Your task to perform on an android device: toggle location history Image 0: 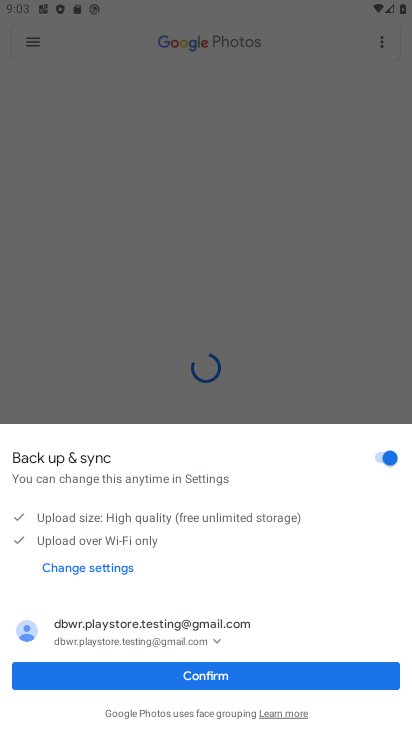
Step 0: press home button
Your task to perform on an android device: toggle location history Image 1: 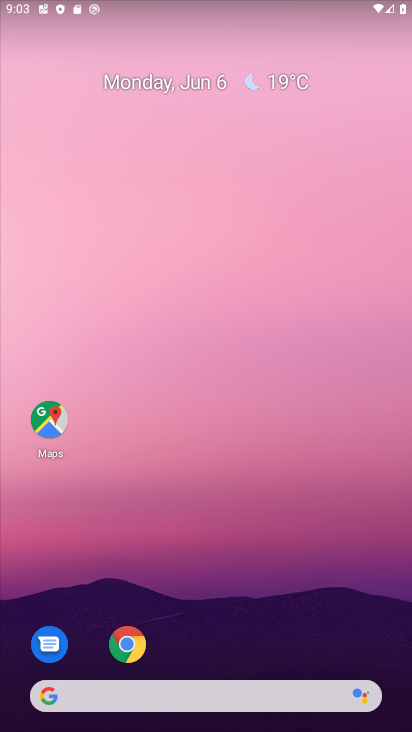
Step 1: drag from (216, 674) to (328, 175)
Your task to perform on an android device: toggle location history Image 2: 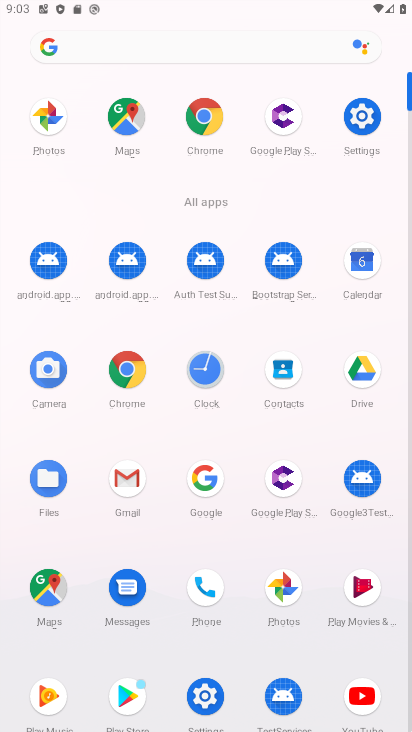
Step 2: click (202, 690)
Your task to perform on an android device: toggle location history Image 3: 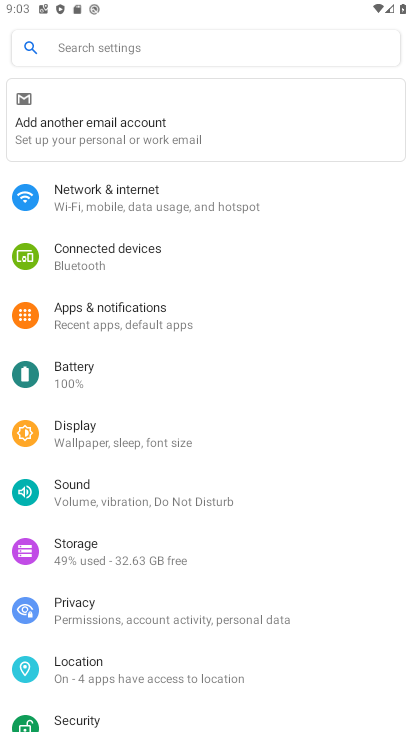
Step 3: drag from (137, 655) to (210, 418)
Your task to perform on an android device: toggle location history Image 4: 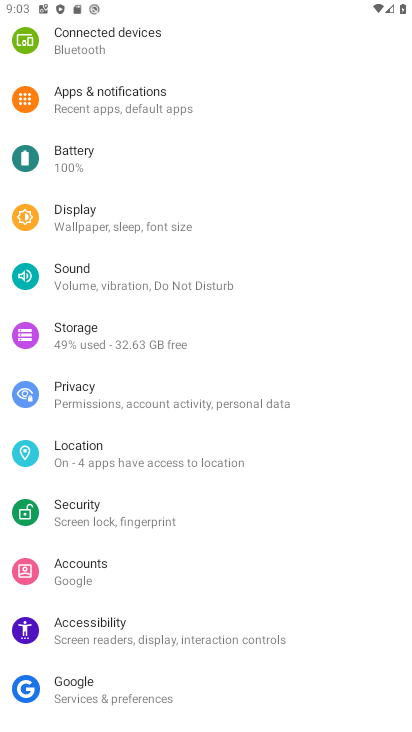
Step 4: click (102, 448)
Your task to perform on an android device: toggle location history Image 5: 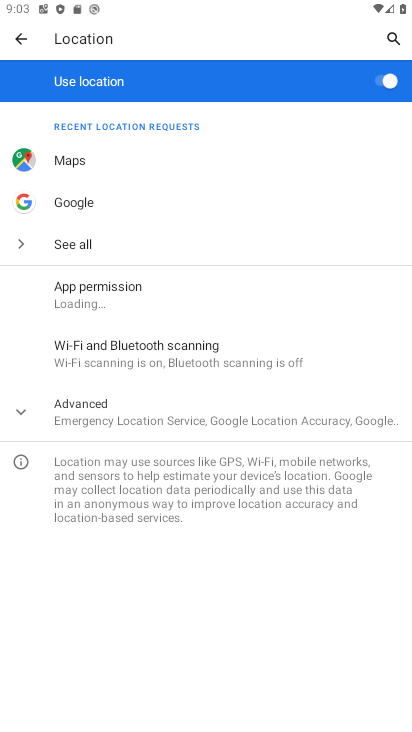
Step 5: click (144, 420)
Your task to perform on an android device: toggle location history Image 6: 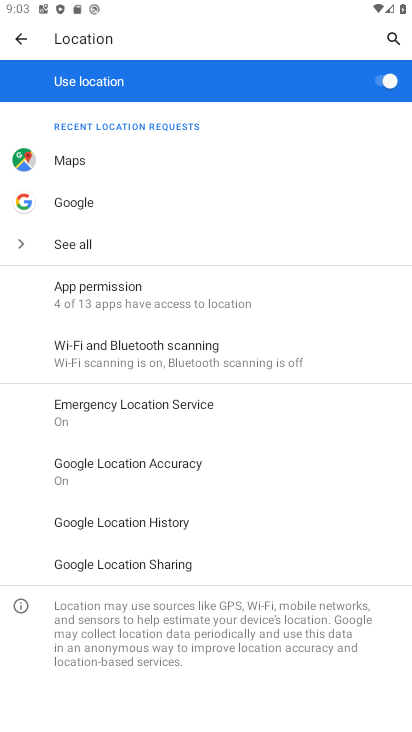
Step 6: click (190, 527)
Your task to perform on an android device: toggle location history Image 7: 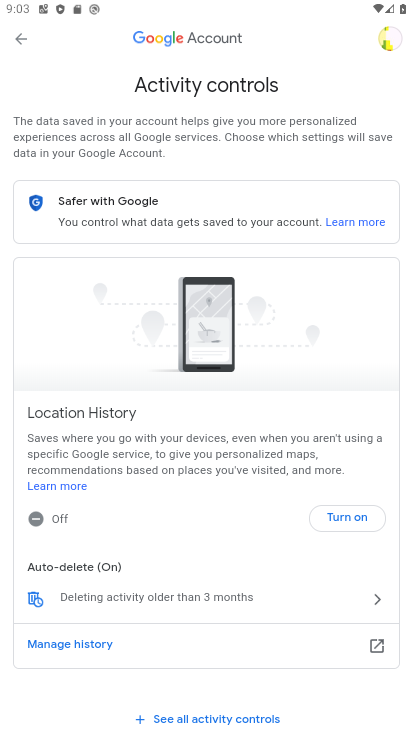
Step 7: click (370, 519)
Your task to perform on an android device: toggle location history Image 8: 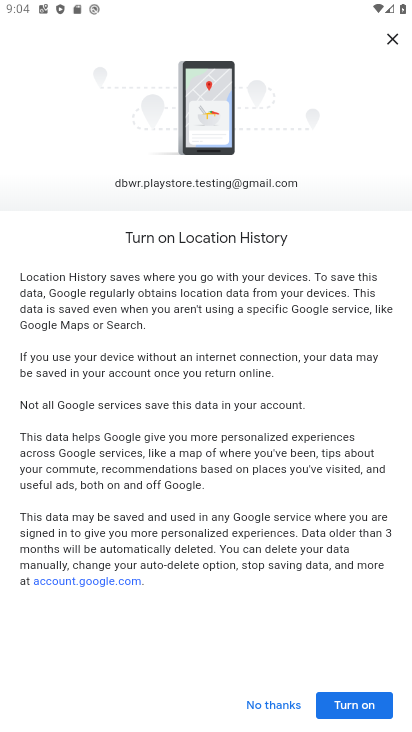
Step 8: click (358, 705)
Your task to perform on an android device: toggle location history Image 9: 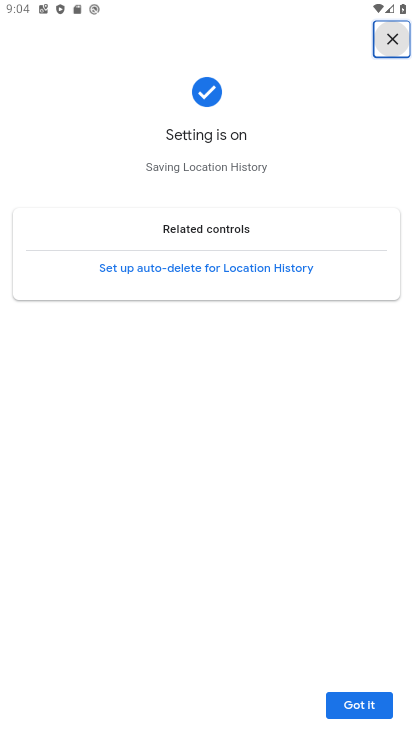
Step 9: click (377, 707)
Your task to perform on an android device: toggle location history Image 10: 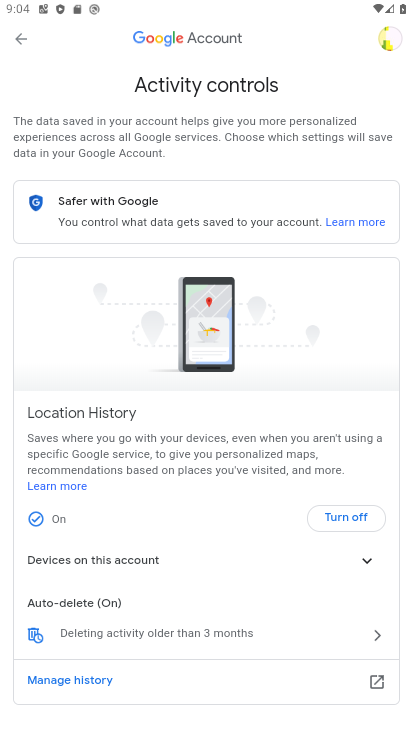
Step 10: task complete